Your task to perform on an android device: toggle sleep mode Image 0: 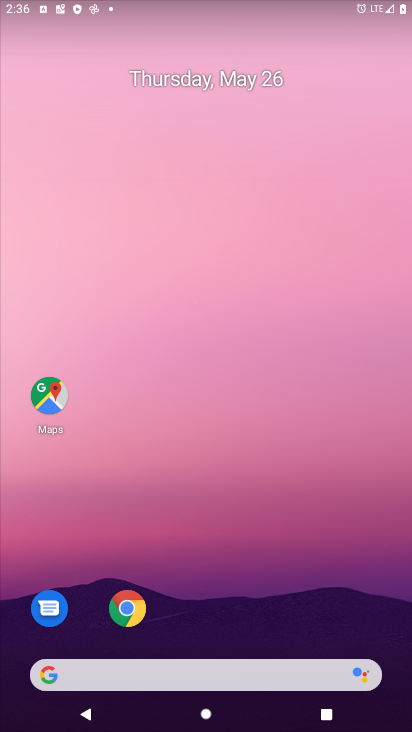
Step 0: drag from (336, 617) to (340, 79)
Your task to perform on an android device: toggle sleep mode Image 1: 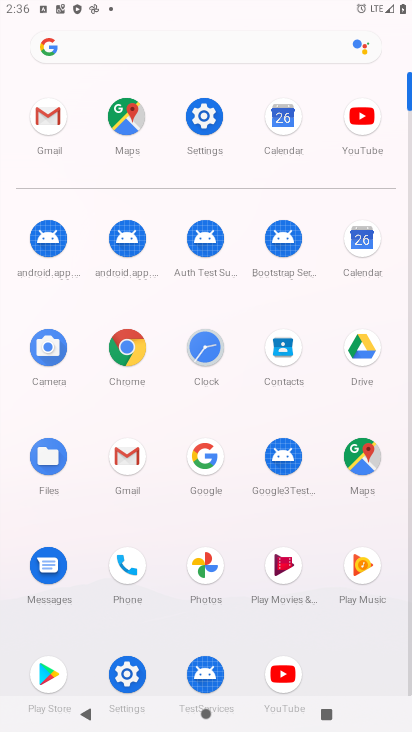
Step 1: click (126, 674)
Your task to perform on an android device: toggle sleep mode Image 2: 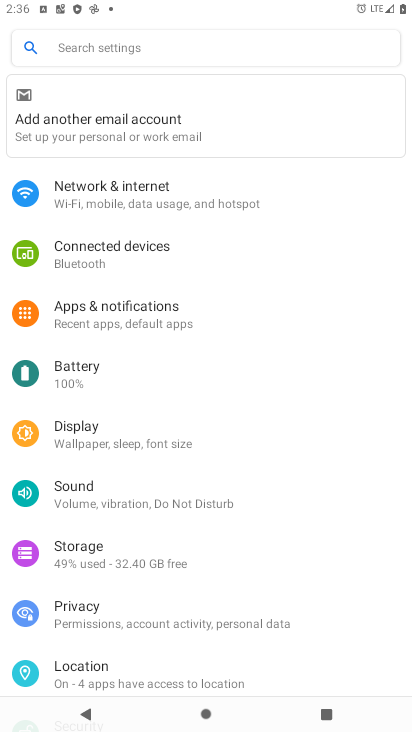
Step 2: click (90, 432)
Your task to perform on an android device: toggle sleep mode Image 3: 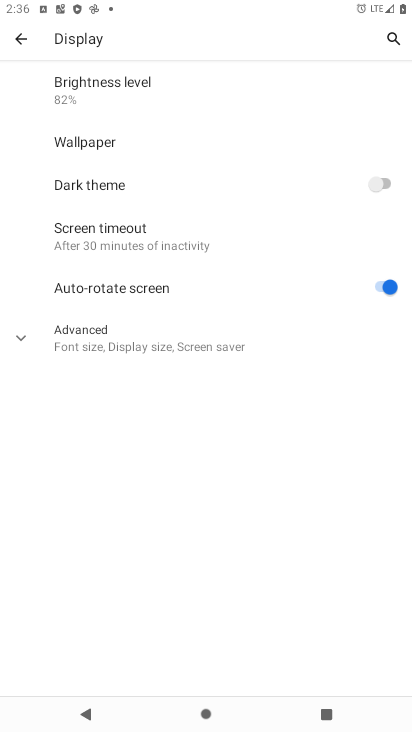
Step 3: click (25, 335)
Your task to perform on an android device: toggle sleep mode Image 4: 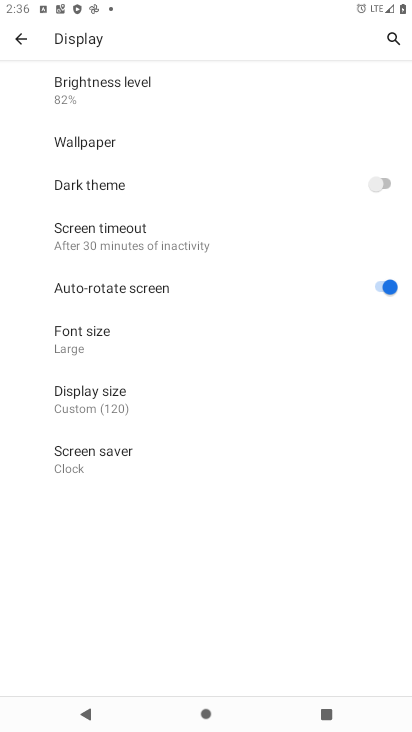
Step 4: task complete